Your task to perform on an android device: install app "DuckDuckGo Privacy Browser" Image 0: 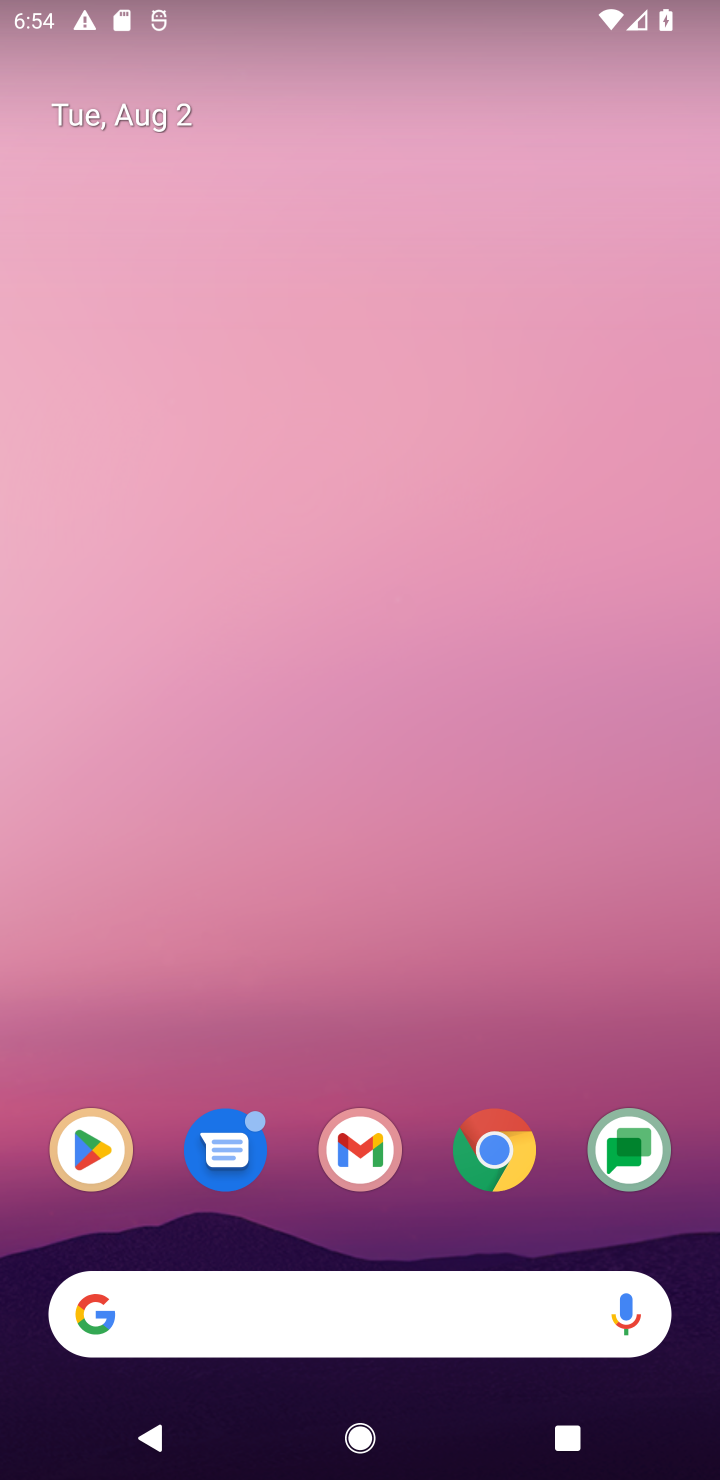
Step 0: drag from (315, 1234) to (656, 333)
Your task to perform on an android device: install app "DuckDuckGo Privacy Browser" Image 1: 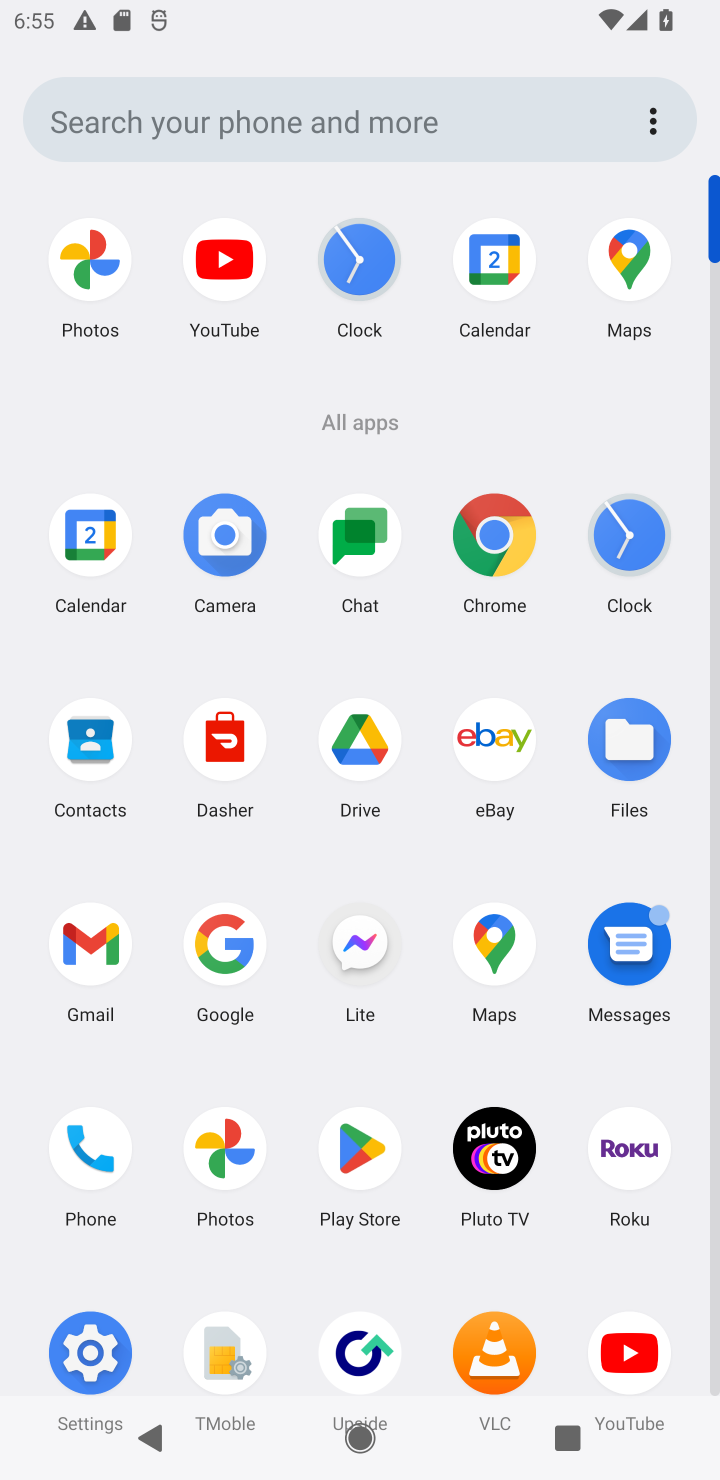
Step 1: click (329, 1195)
Your task to perform on an android device: install app "DuckDuckGo Privacy Browser" Image 2: 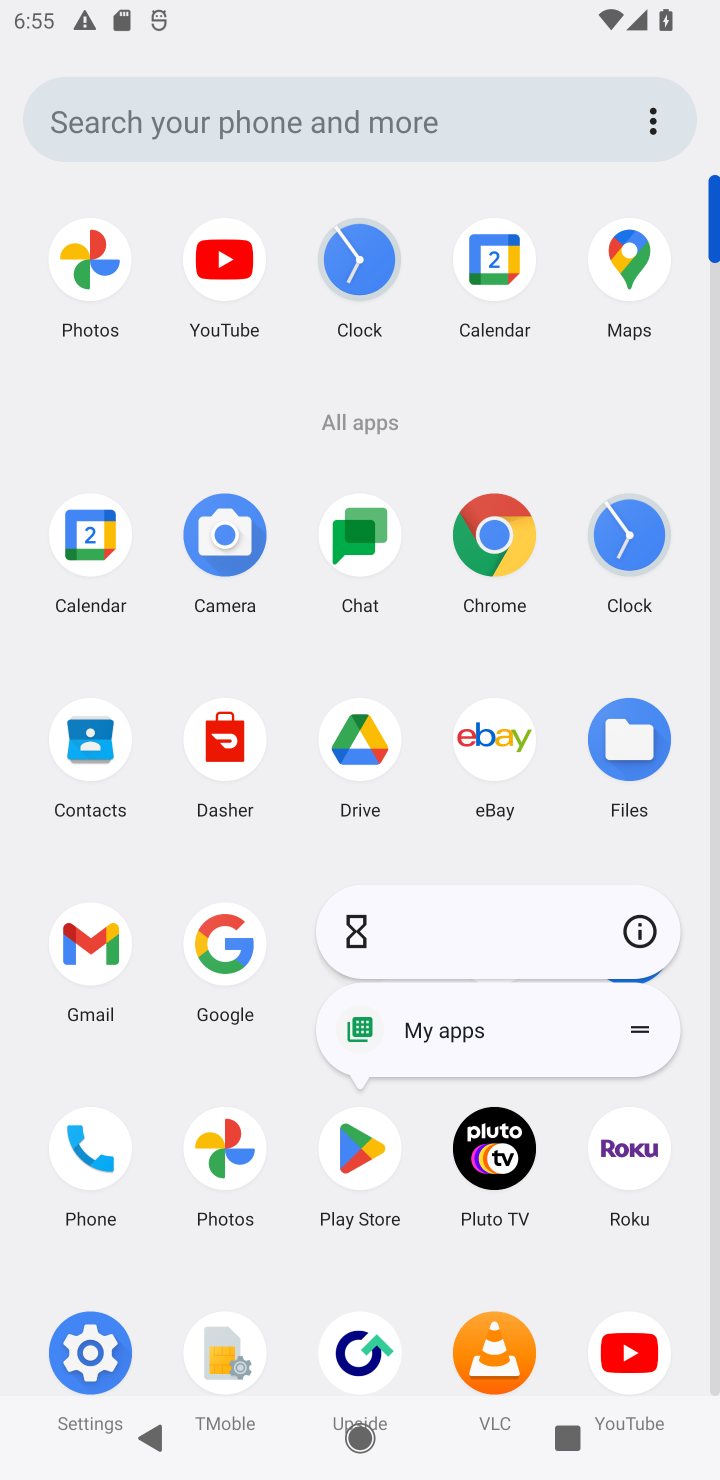
Step 2: click (320, 1171)
Your task to perform on an android device: install app "DuckDuckGo Privacy Browser" Image 3: 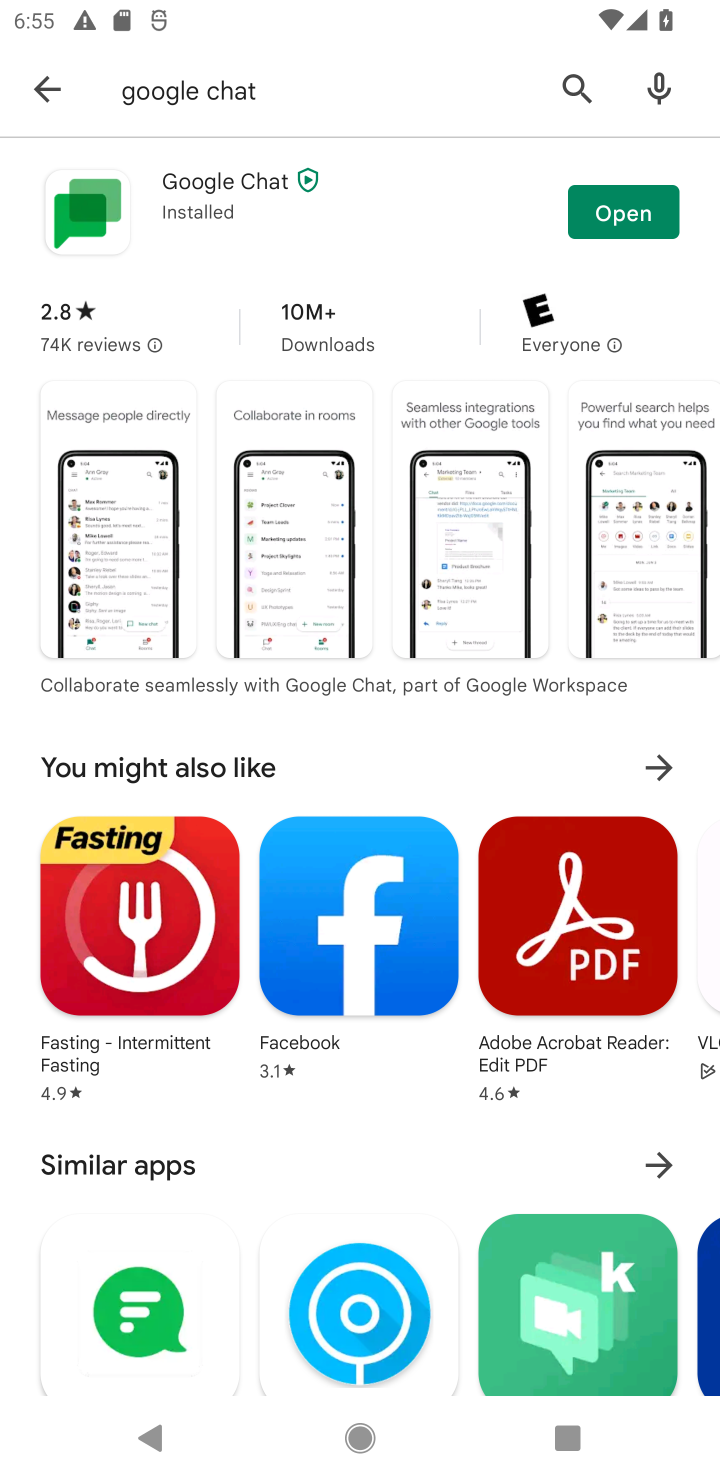
Step 3: click (47, 93)
Your task to perform on an android device: install app "DuckDuckGo Privacy Browser" Image 4: 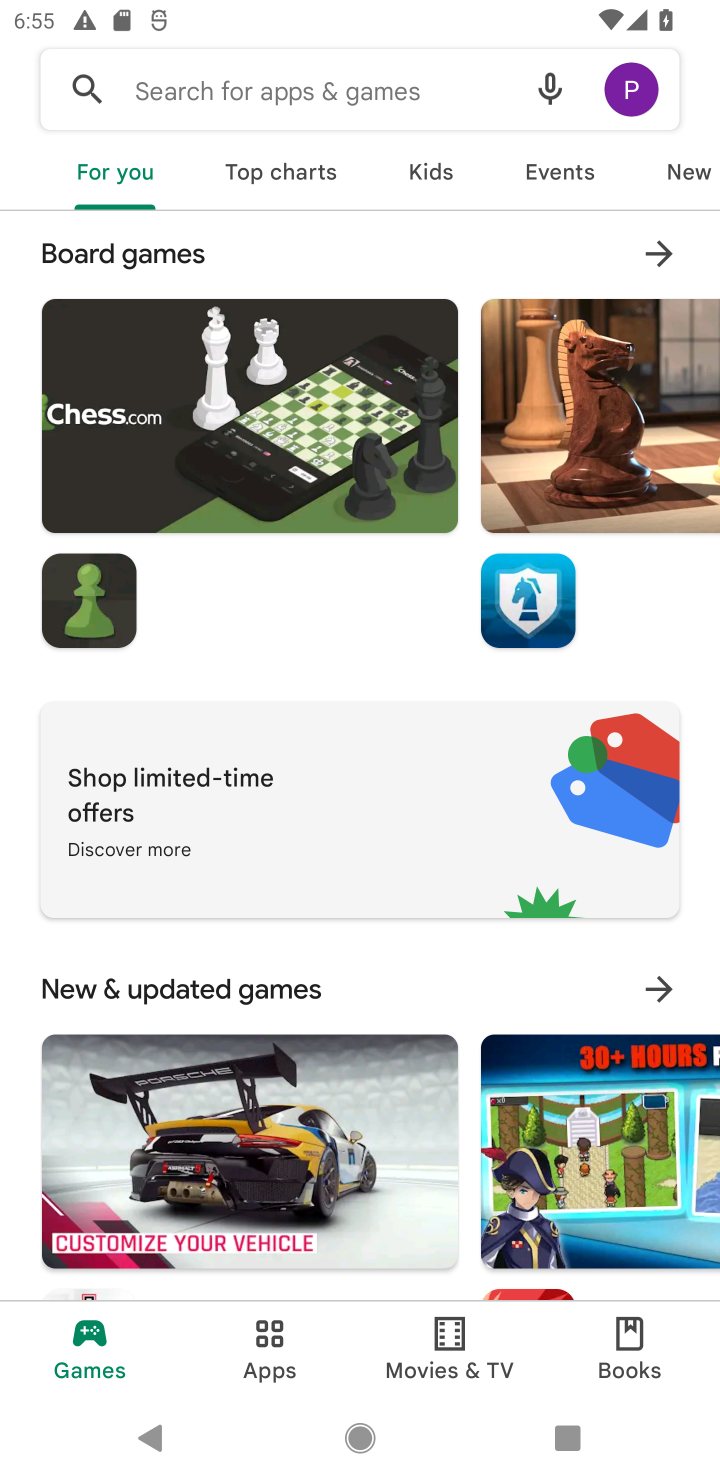
Step 4: click (162, 89)
Your task to perform on an android device: install app "DuckDuckGo Privacy Browser" Image 5: 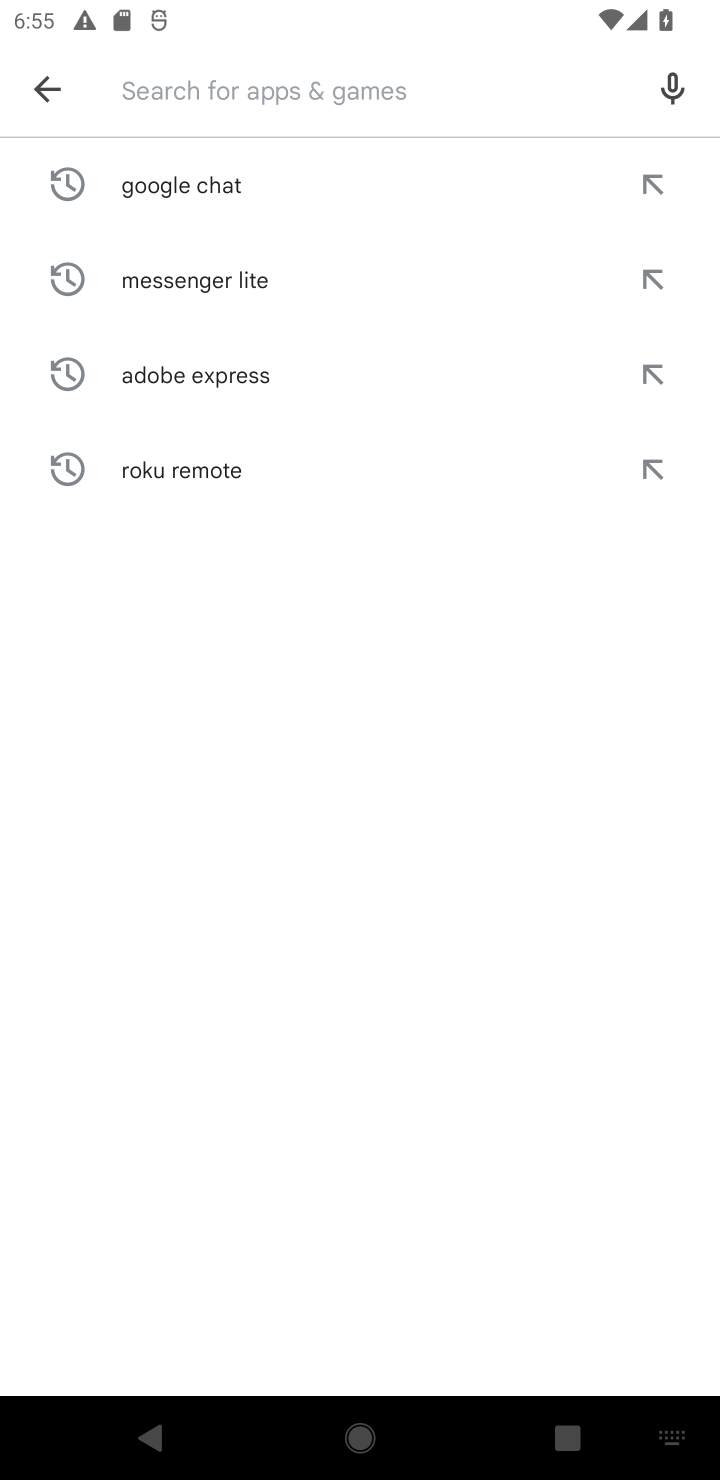
Step 5: type "DuckDuckGo Privacy Browser"
Your task to perform on an android device: install app "DuckDuckGo Privacy Browser" Image 6: 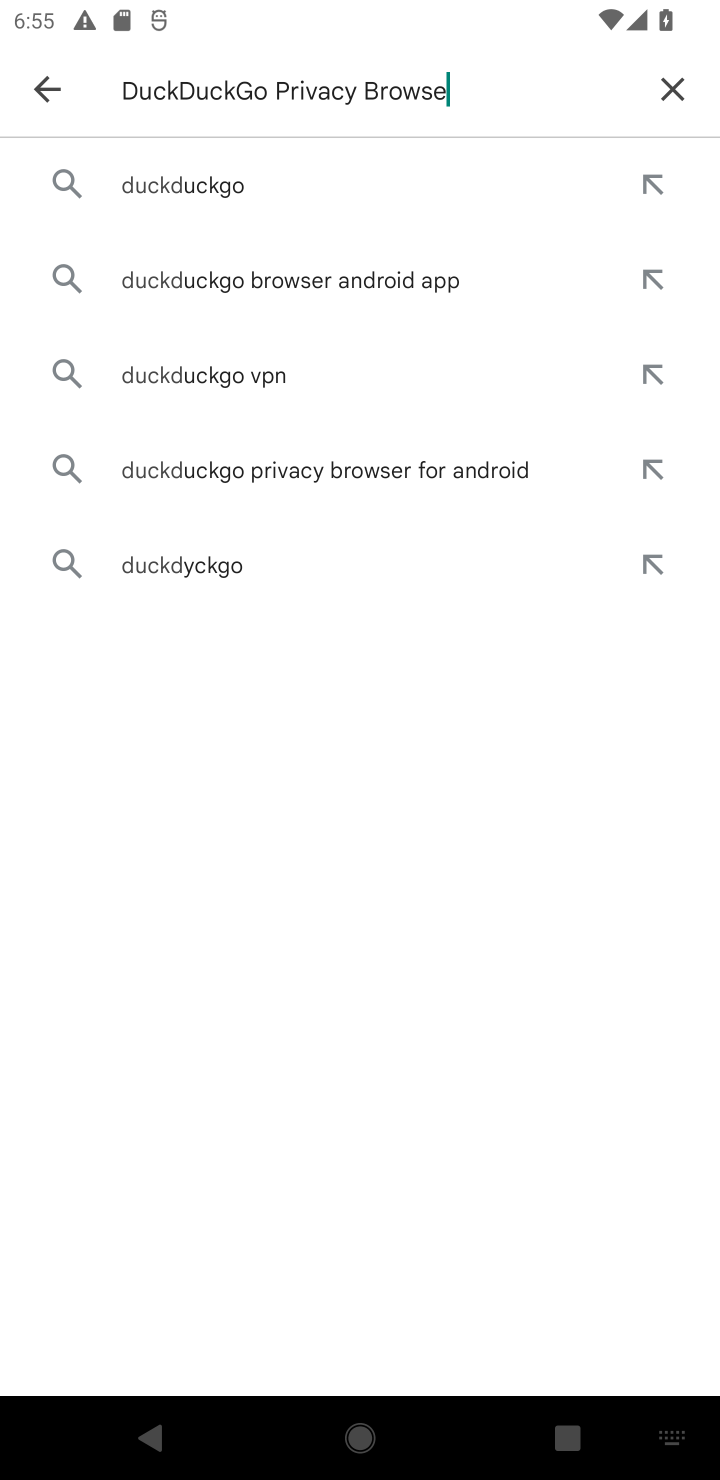
Step 6: type ""
Your task to perform on an android device: install app "DuckDuckGo Privacy Browser" Image 7: 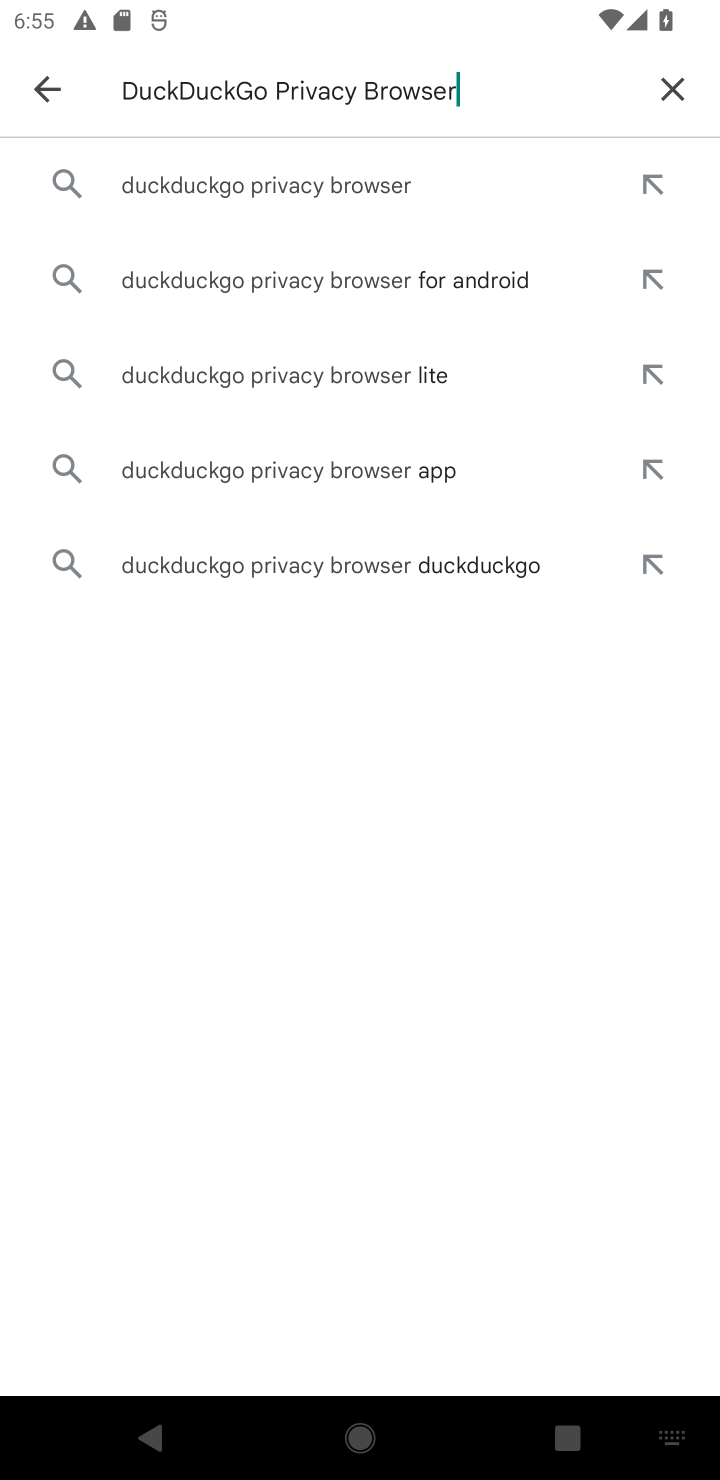
Step 7: click (195, 153)
Your task to perform on an android device: install app "DuckDuckGo Privacy Browser" Image 8: 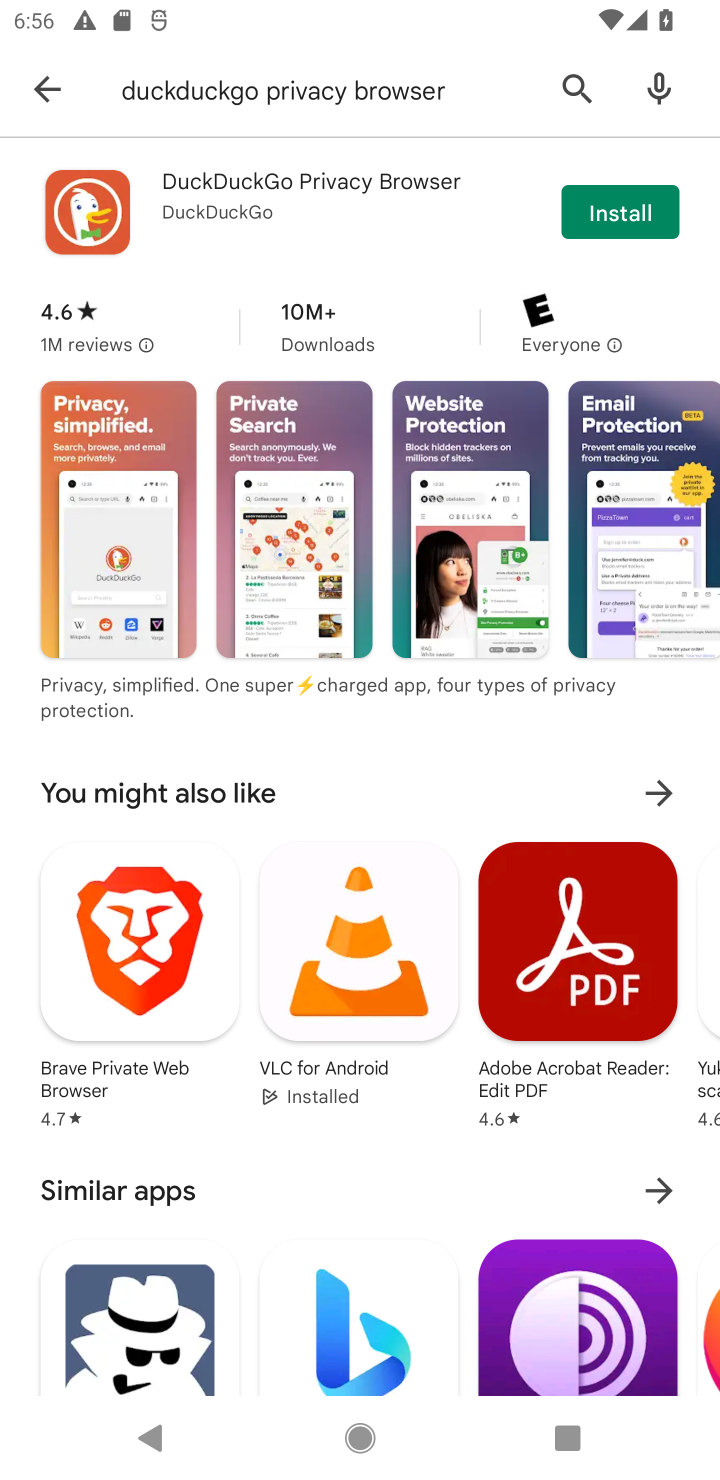
Step 8: click (618, 211)
Your task to perform on an android device: install app "DuckDuckGo Privacy Browser" Image 9: 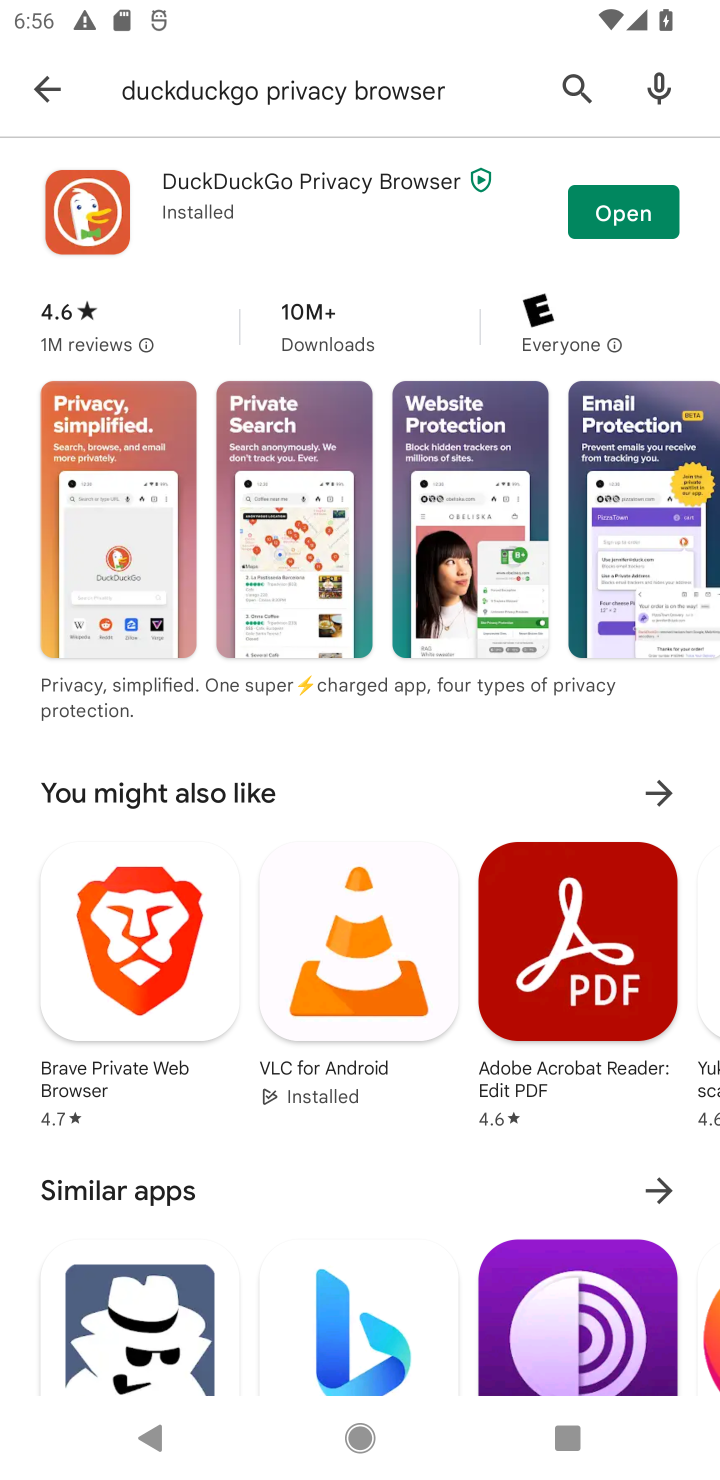
Step 9: click (581, 187)
Your task to perform on an android device: install app "DuckDuckGo Privacy Browser" Image 10: 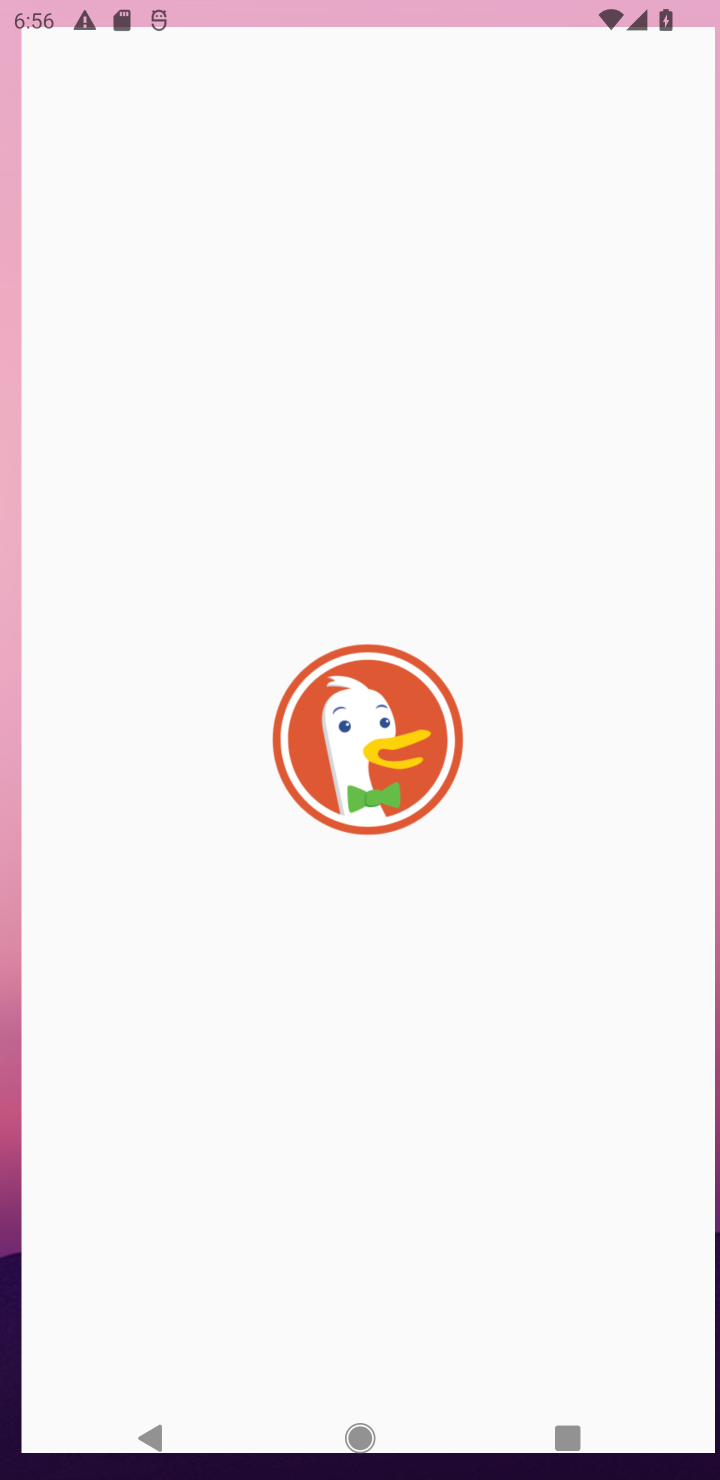
Step 10: task complete